Your task to perform on an android device: Set the phone to "Do not disturb". Image 0: 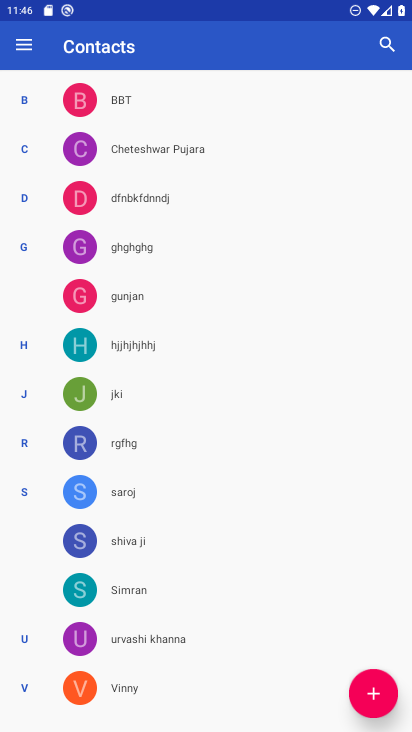
Step 0: press home button
Your task to perform on an android device: Set the phone to "Do not disturb". Image 1: 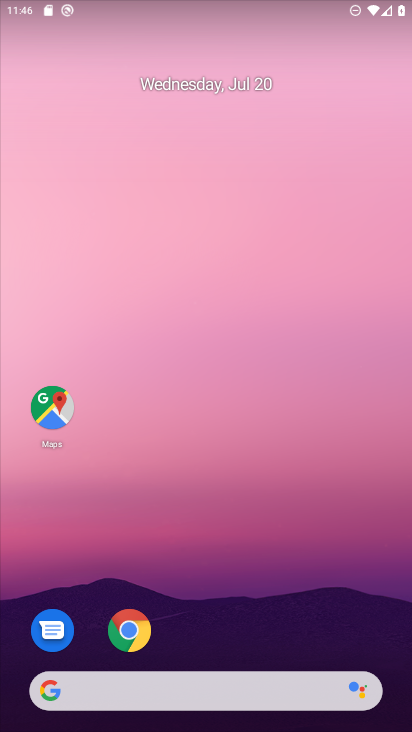
Step 1: drag from (244, 686) to (290, 202)
Your task to perform on an android device: Set the phone to "Do not disturb". Image 2: 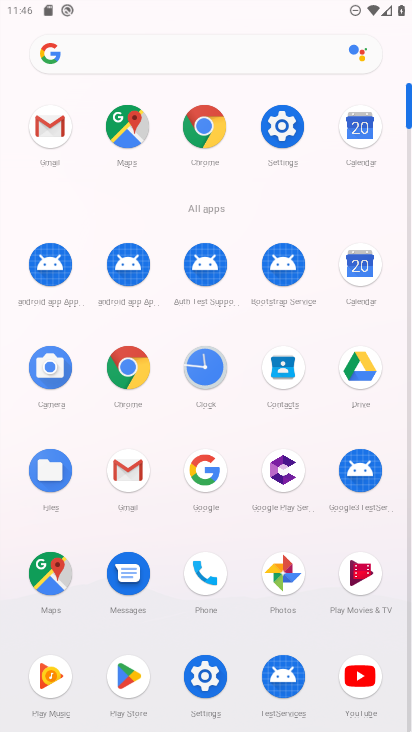
Step 2: click (276, 132)
Your task to perform on an android device: Set the phone to "Do not disturb". Image 3: 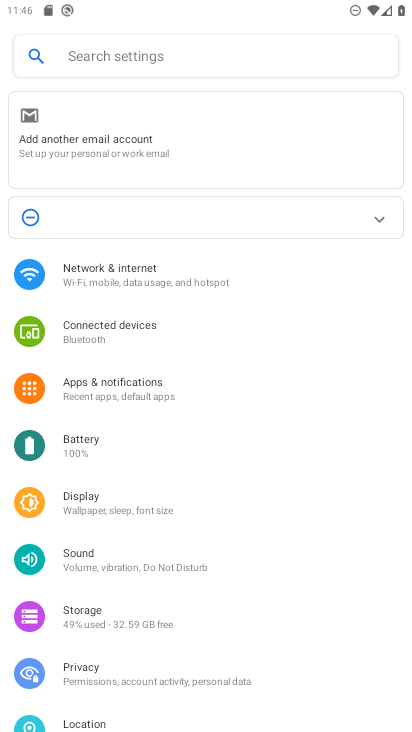
Step 3: click (120, 52)
Your task to perform on an android device: Set the phone to "Do not disturb". Image 4: 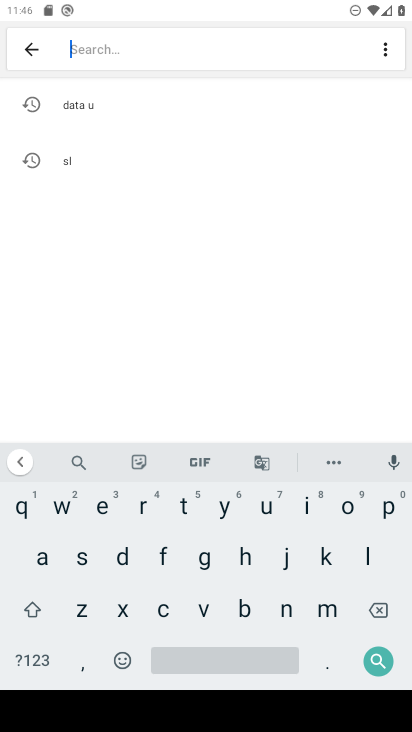
Step 4: click (113, 554)
Your task to perform on an android device: Set the phone to "Do not disturb". Image 5: 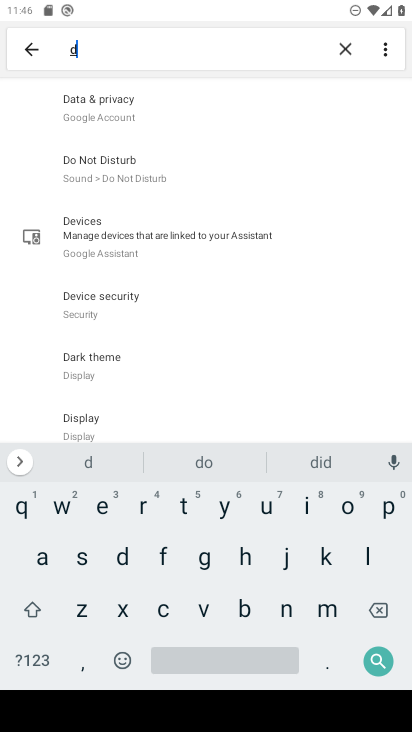
Step 5: click (279, 606)
Your task to perform on an android device: Set the phone to "Do not disturb". Image 6: 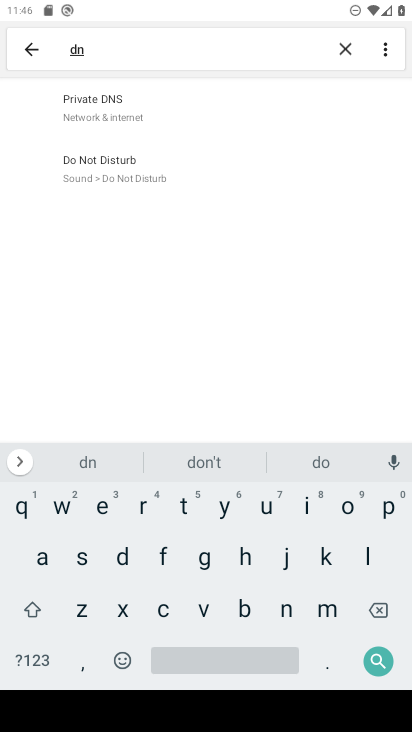
Step 6: click (124, 169)
Your task to perform on an android device: Set the phone to "Do not disturb". Image 7: 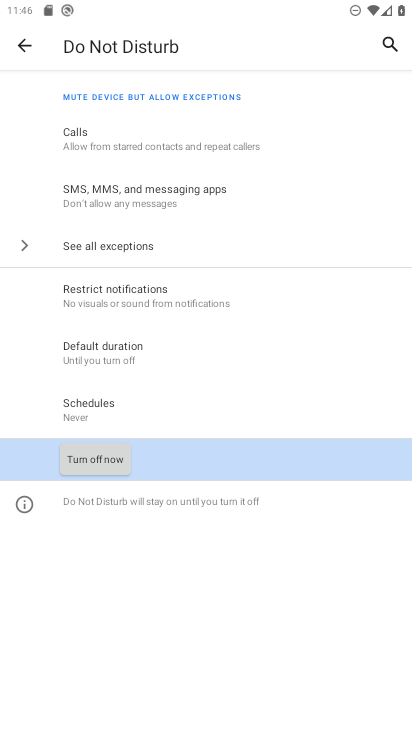
Step 7: click (82, 463)
Your task to perform on an android device: Set the phone to "Do not disturb". Image 8: 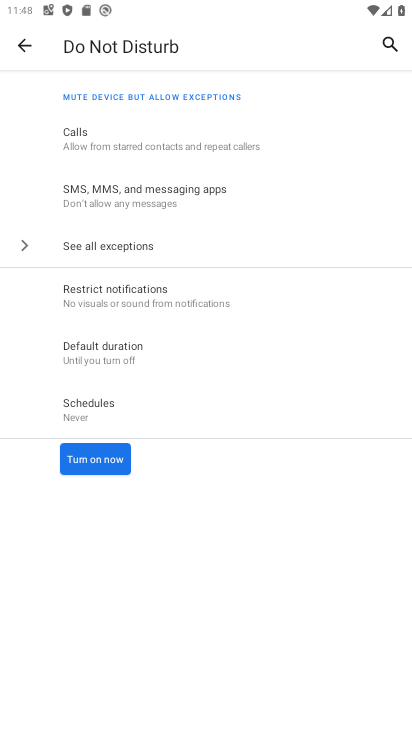
Step 8: task complete